Your task to perform on an android device: toggle show notifications on the lock screen Image 0: 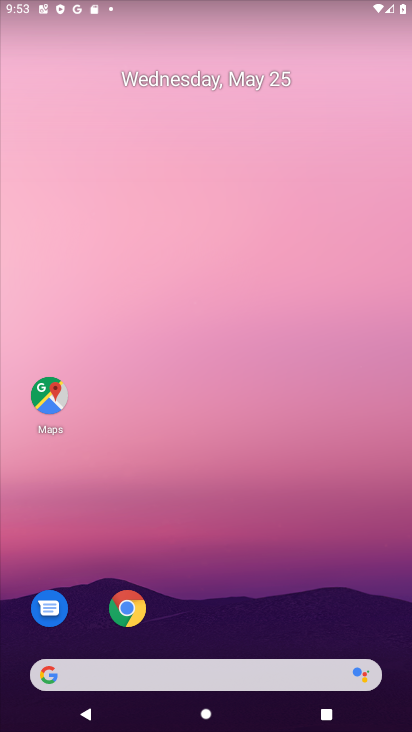
Step 0: drag from (327, 648) to (346, 0)
Your task to perform on an android device: toggle show notifications on the lock screen Image 1: 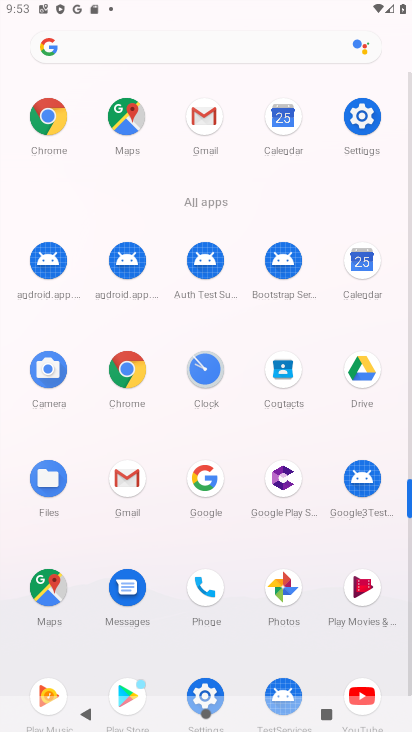
Step 1: click (365, 116)
Your task to perform on an android device: toggle show notifications on the lock screen Image 2: 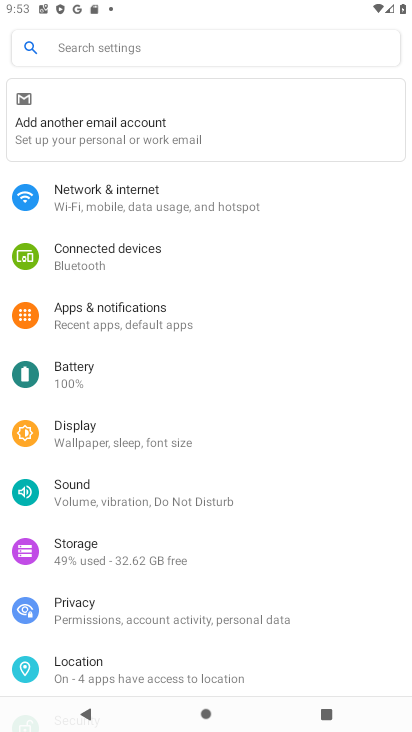
Step 2: click (93, 309)
Your task to perform on an android device: toggle show notifications on the lock screen Image 3: 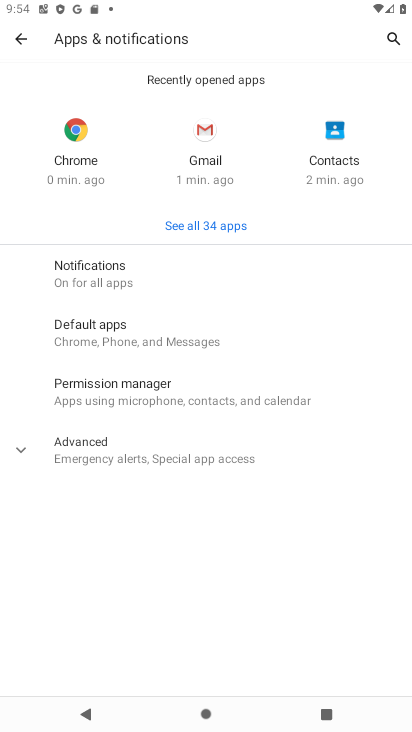
Step 3: click (87, 273)
Your task to perform on an android device: toggle show notifications on the lock screen Image 4: 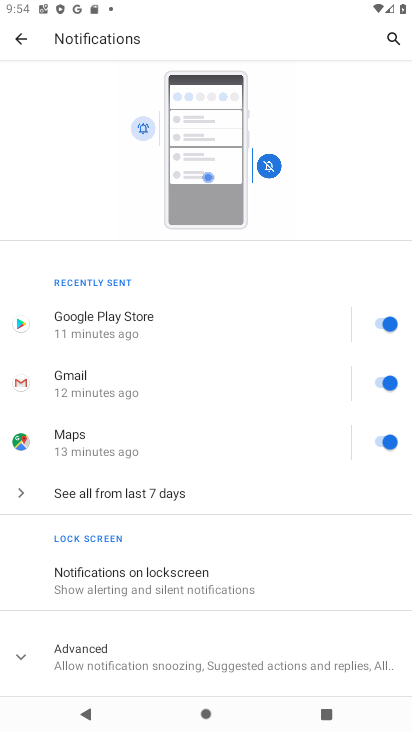
Step 4: click (100, 582)
Your task to perform on an android device: toggle show notifications on the lock screen Image 5: 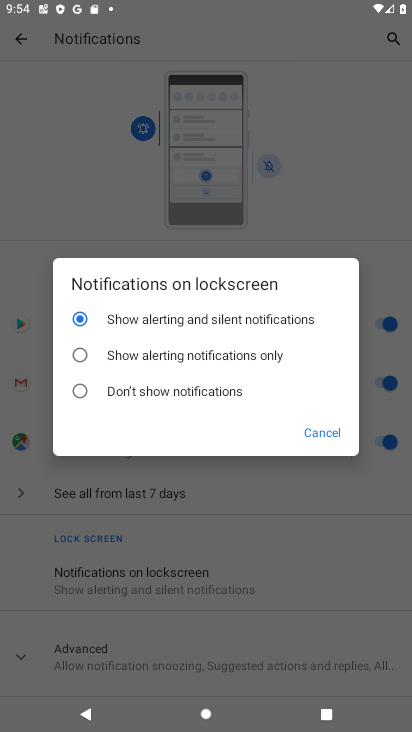
Step 5: click (80, 382)
Your task to perform on an android device: toggle show notifications on the lock screen Image 6: 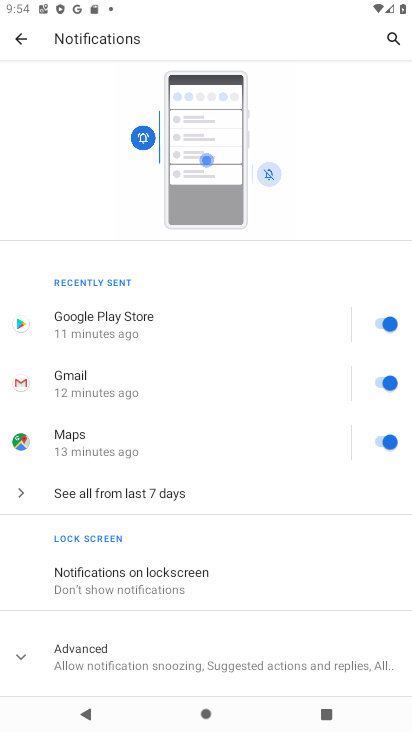
Step 6: task complete